Your task to perform on an android device: Open wifi settings Image 0: 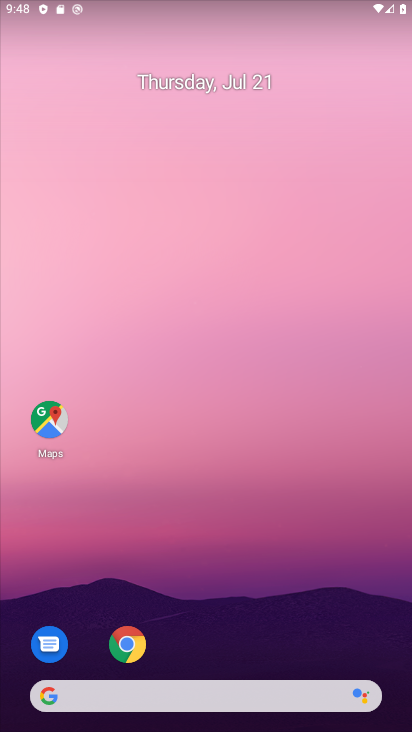
Step 0: drag from (263, 616) to (244, 199)
Your task to perform on an android device: Open wifi settings Image 1: 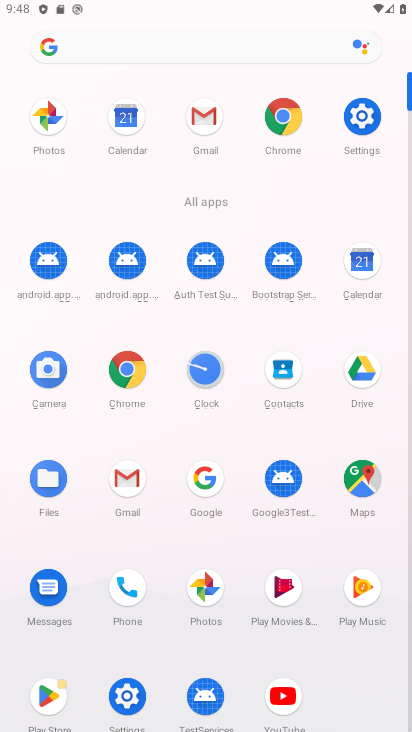
Step 1: click (133, 679)
Your task to perform on an android device: Open wifi settings Image 2: 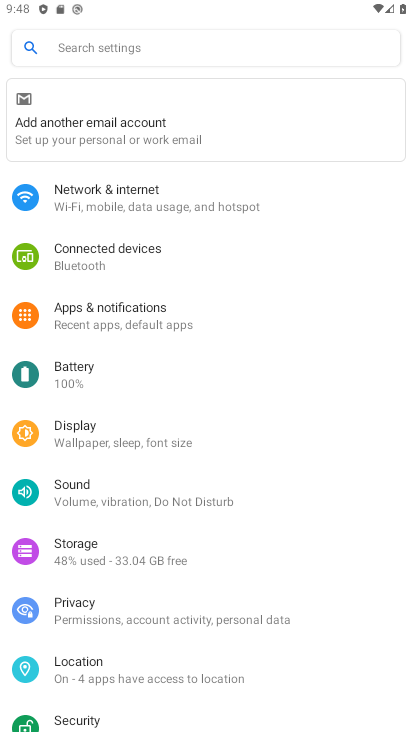
Step 2: click (173, 198)
Your task to perform on an android device: Open wifi settings Image 3: 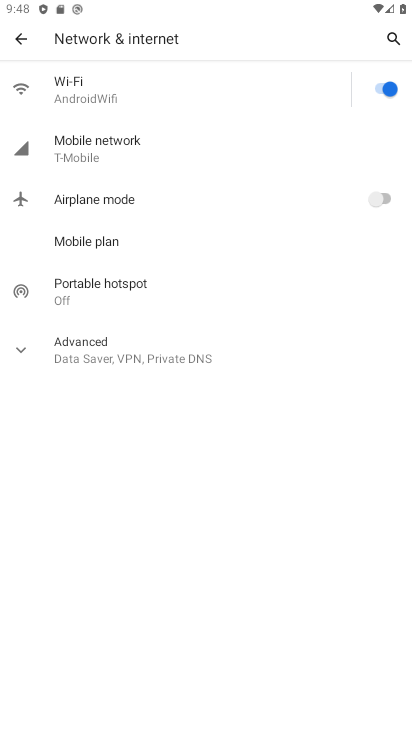
Step 3: click (111, 90)
Your task to perform on an android device: Open wifi settings Image 4: 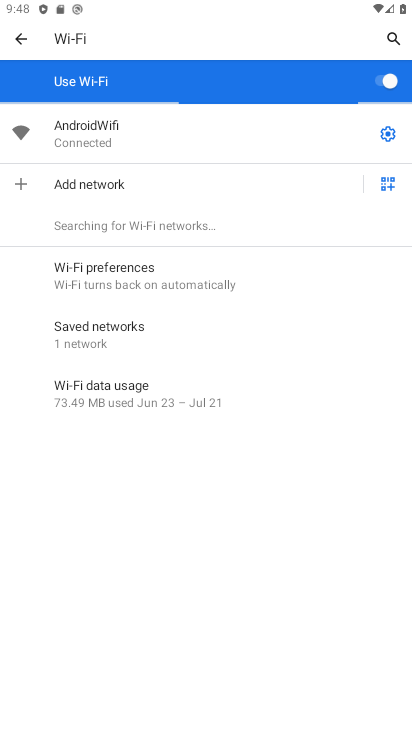
Step 4: task complete